Your task to perform on an android device: Open privacy settings Image 0: 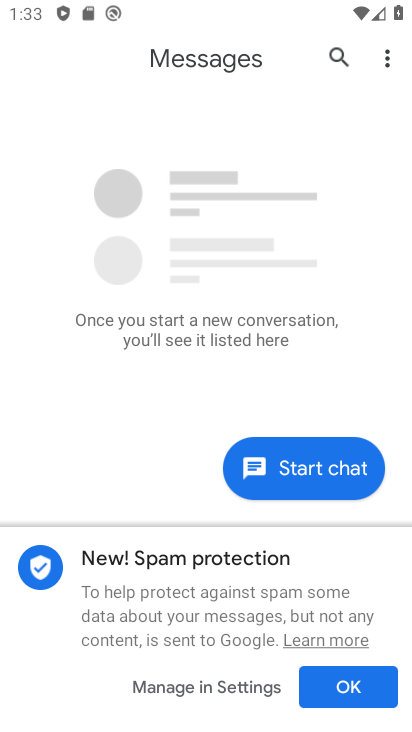
Step 0: press home button
Your task to perform on an android device: Open privacy settings Image 1: 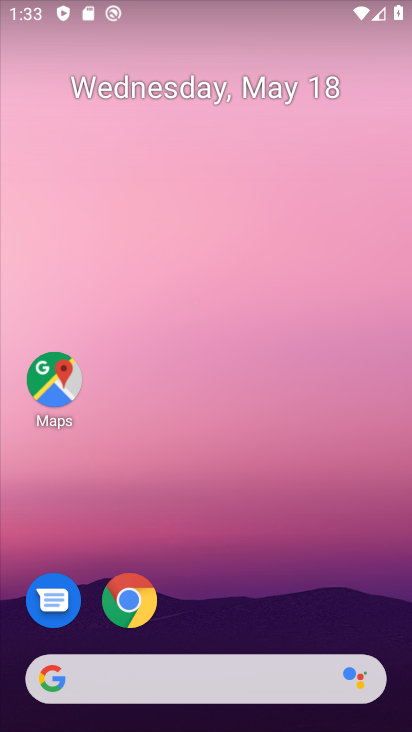
Step 1: drag from (174, 644) to (217, 171)
Your task to perform on an android device: Open privacy settings Image 2: 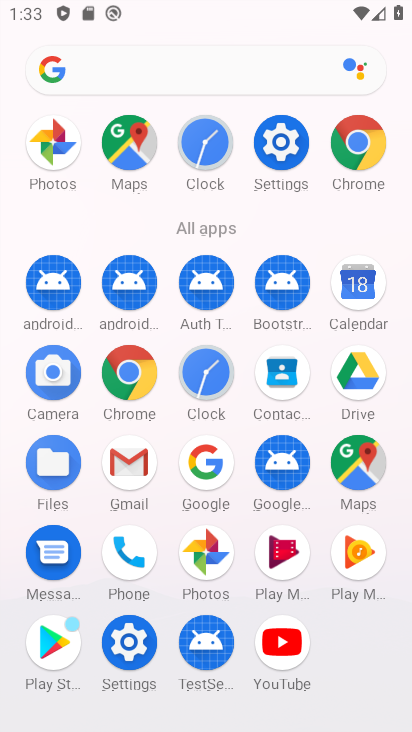
Step 2: click (283, 149)
Your task to perform on an android device: Open privacy settings Image 3: 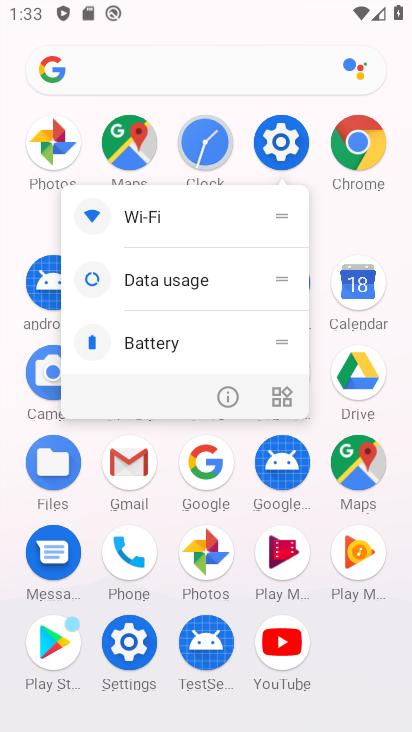
Step 3: click (281, 142)
Your task to perform on an android device: Open privacy settings Image 4: 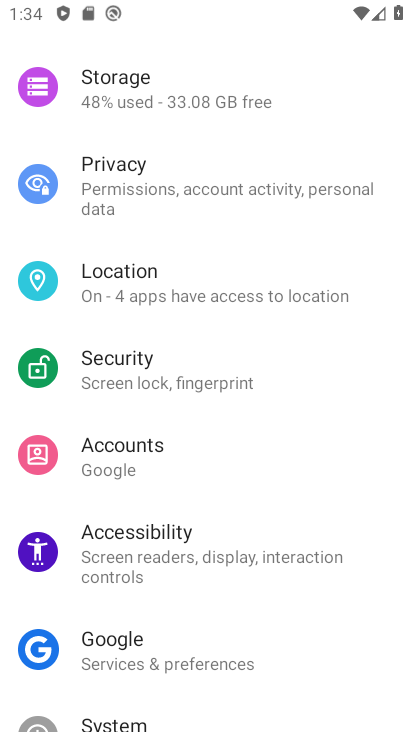
Step 4: click (164, 177)
Your task to perform on an android device: Open privacy settings Image 5: 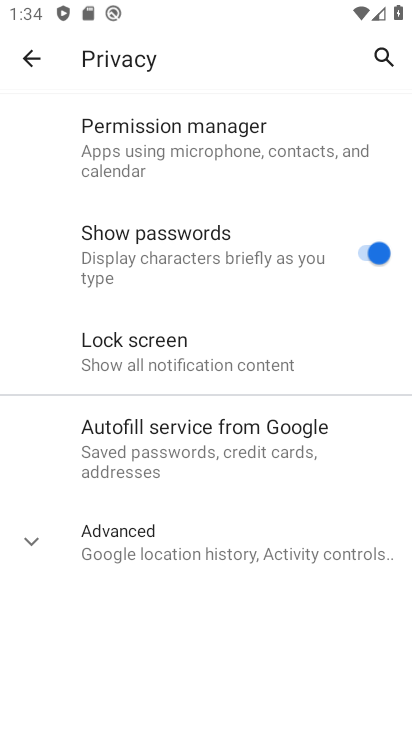
Step 5: click (113, 535)
Your task to perform on an android device: Open privacy settings Image 6: 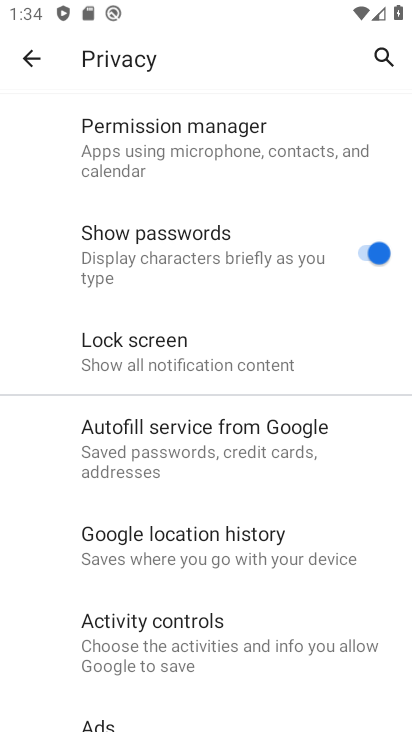
Step 6: task complete